Your task to perform on an android device: Search for Italian restaurants on Maps Image 0: 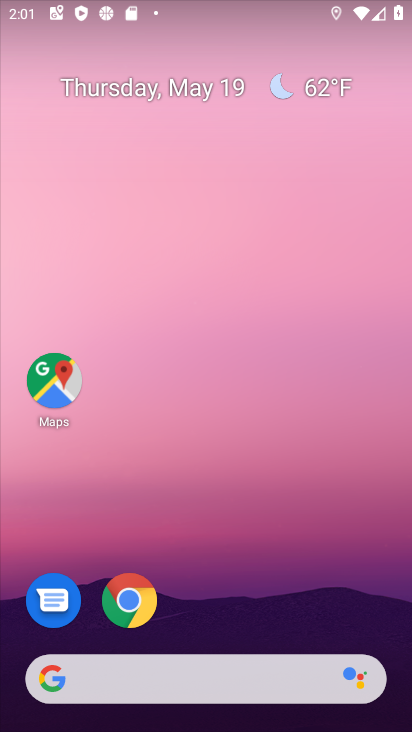
Step 0: click (59, 380)
Your task to perform on an android device: Search for Italian restaurants on Maps Image 1: 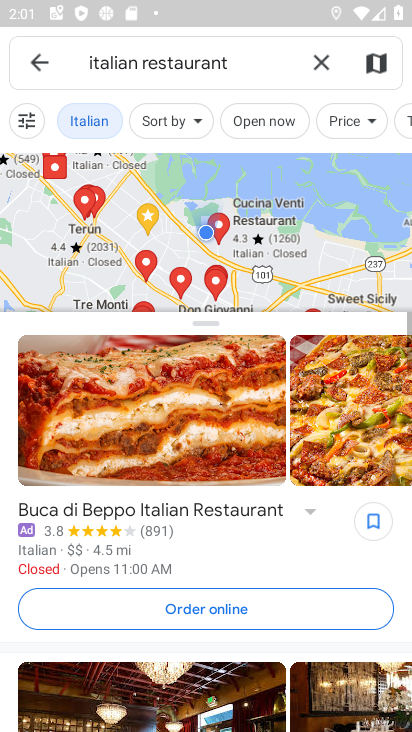
Step 1: task complete